Your task to perform on an android device: show emergency info Image 0: 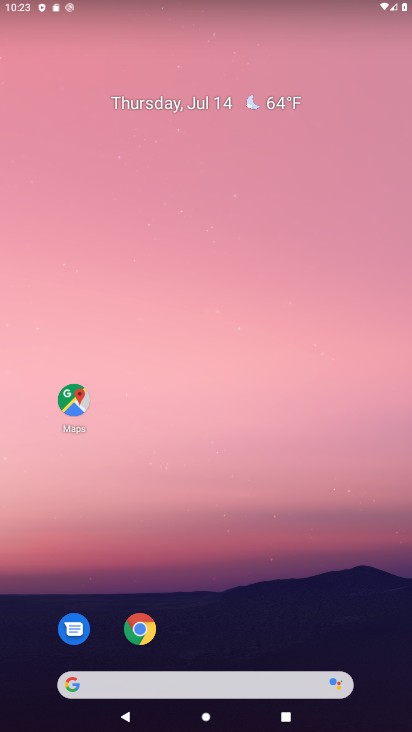
Step 0: drag from (129, 675) to (189, 199)
Your task to perform on an android device: show emergency info Image 1: 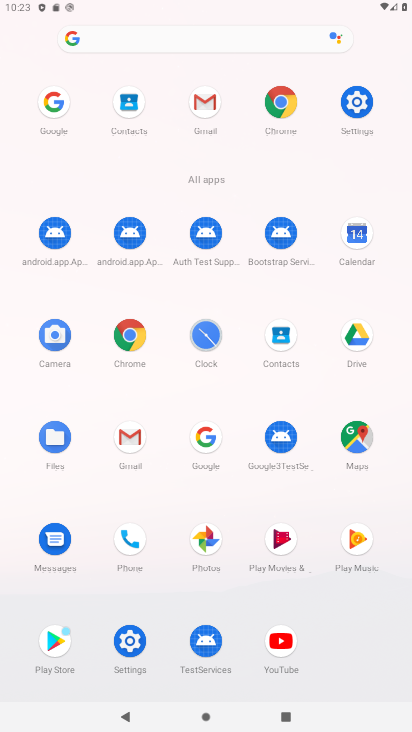
Step 1: click (353, 104)
Your task to perform on an android device: show emergency info Image 2: 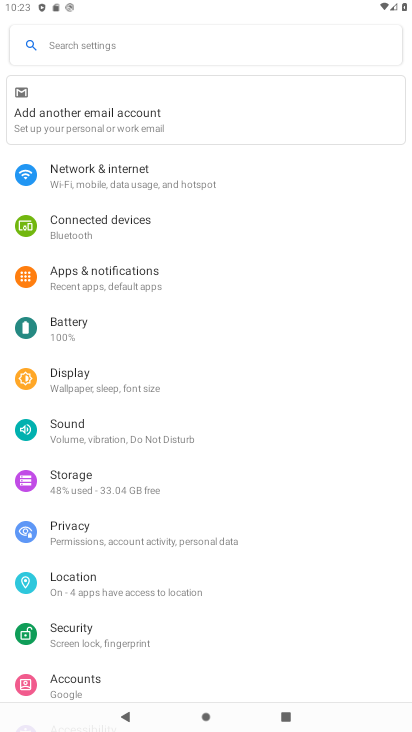
Step 2: drag from (82, 691) to (113, 284)
Your task to perform on an android device: show emergency info Image 3: 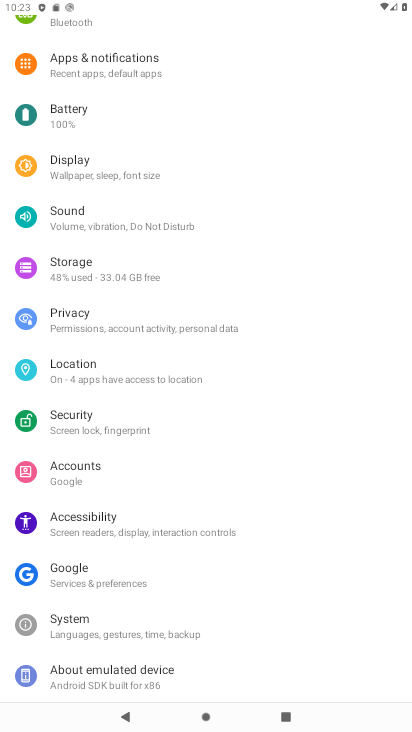
Step 3: click (71, 668)
Your task to perform on an android device: show emergency info Image 4: 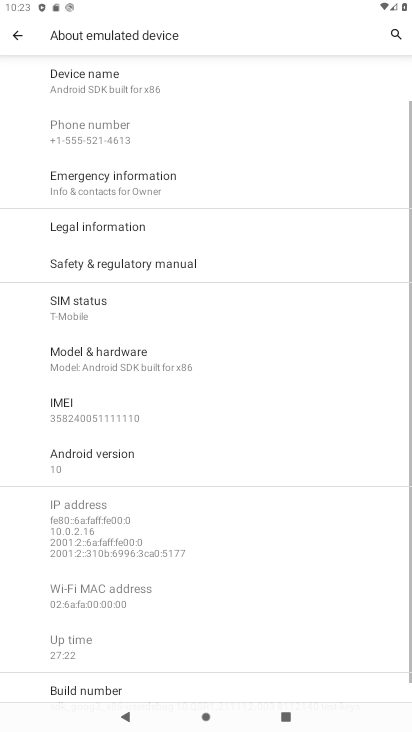
Step 4: click (121, 191)
Your task to perform on an android device: show emergency info Image 5: 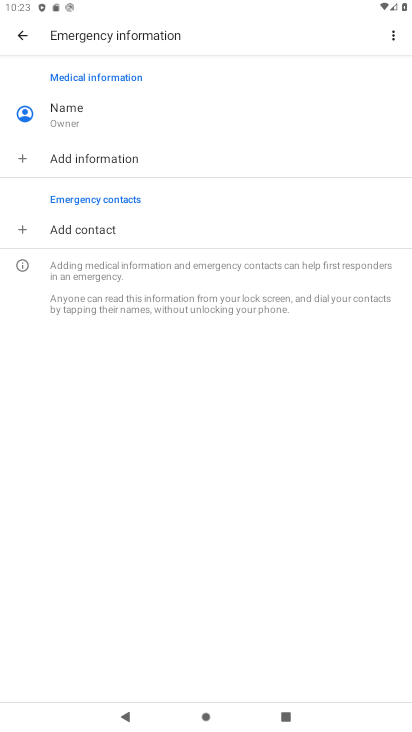
Step 5: task complete